Your task to perform on an android device: Do I have any events today? Image 0: 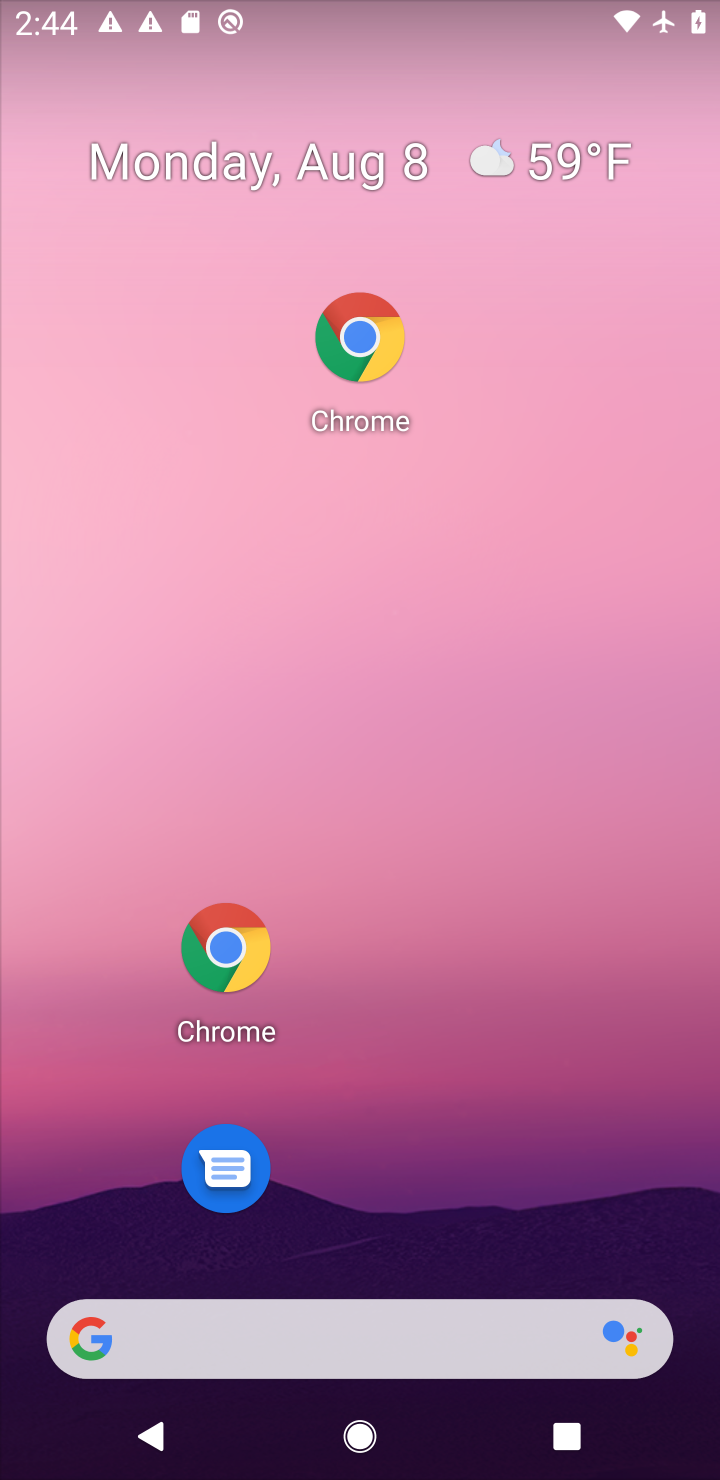
Step 0: drag from (454, 1266) to (592, 163)
Your task to perform on an android device: Do I have any events today? Image 1: 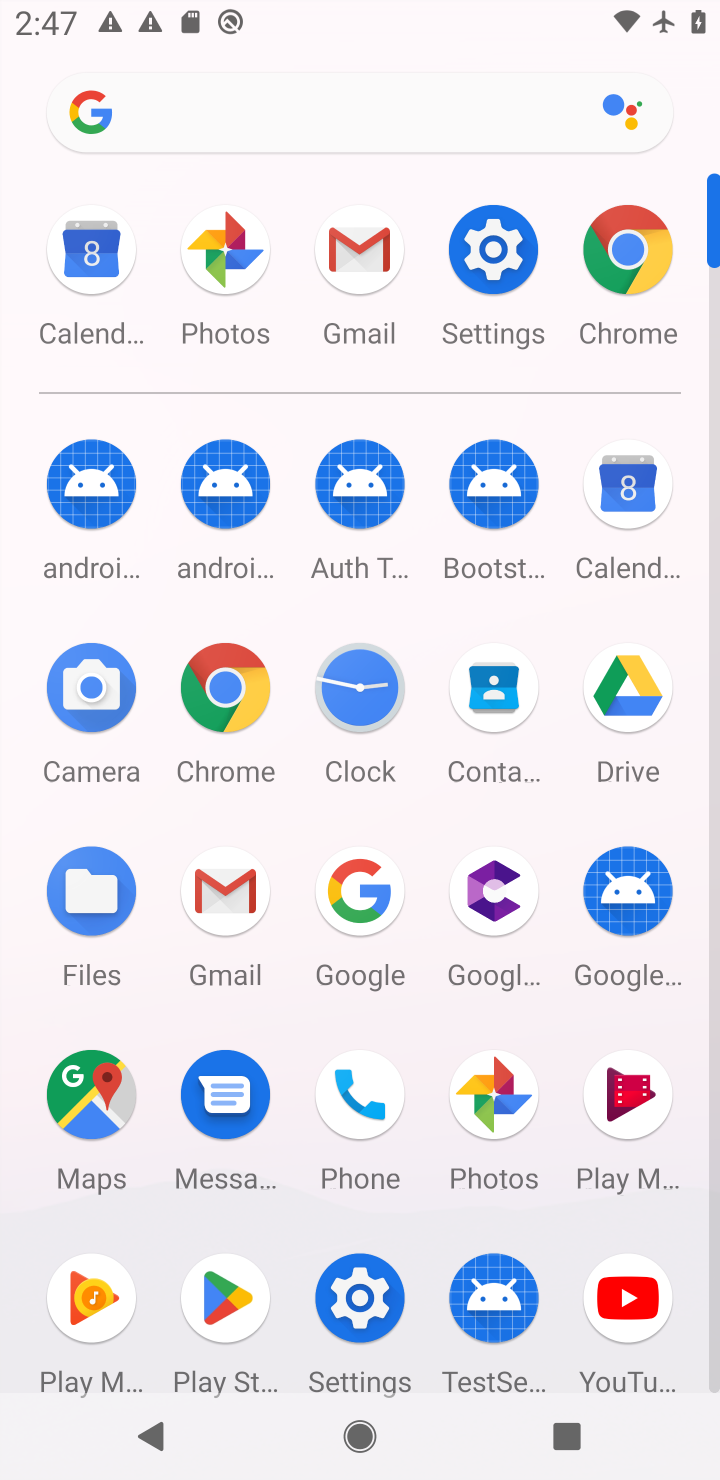
Step 1: click (624, 535)
Your task to perform on an android device: Do I have any events today? Image 2: 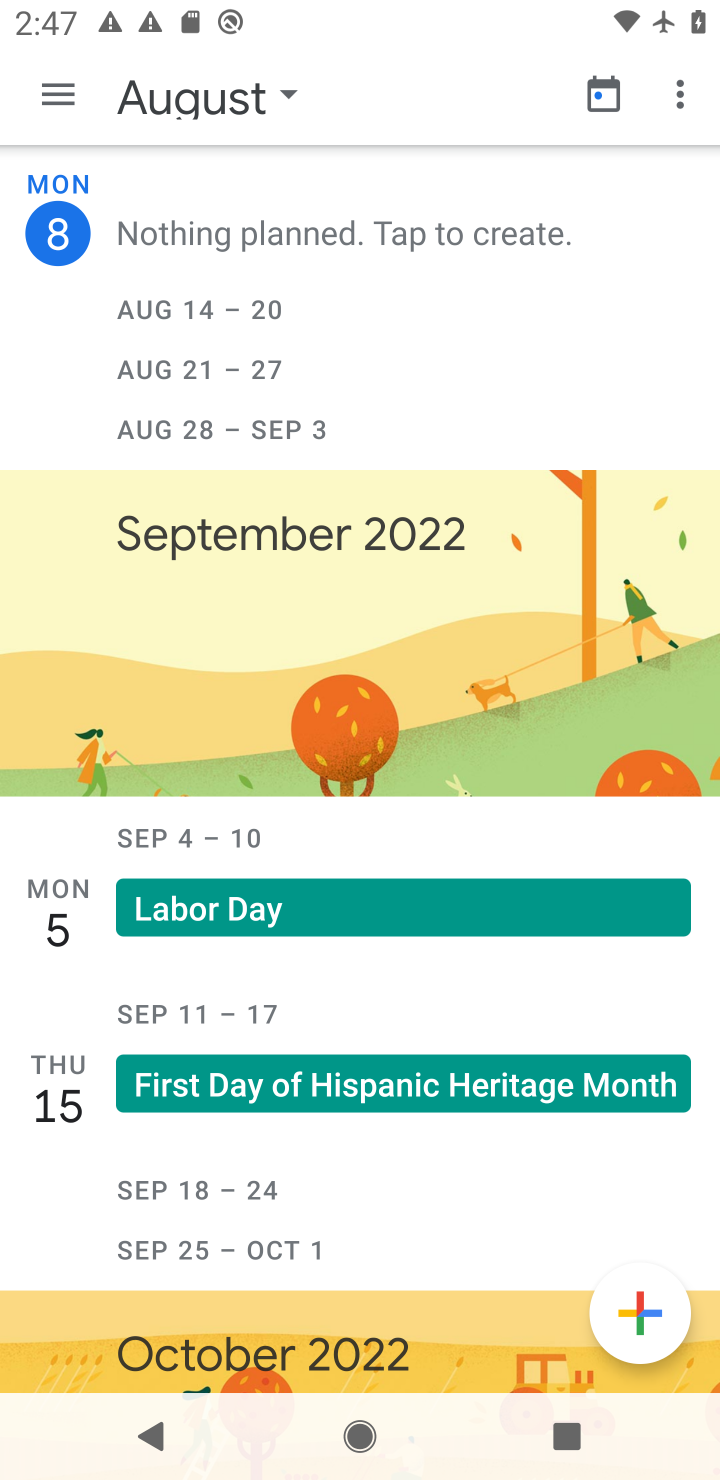
Step 2: task complete